Your task to perform on an android device: turn off notifications in google photos Image 0: 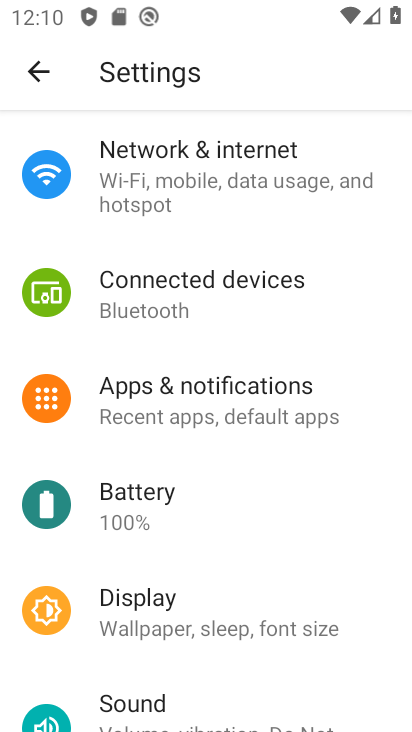
Step 0: press home button
Your task to perform on an android device: turn off notifications in google photos Image 1: 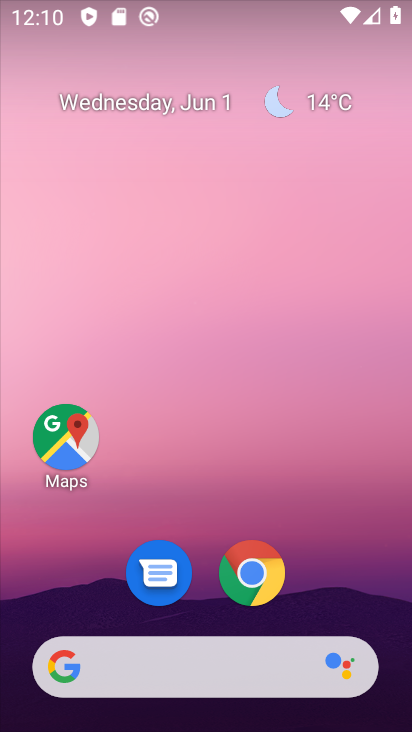
Step 1: drag from (135, 477) to (196, 158)
Your task to perform on an android device: turn off notifications in google photos Image 2: 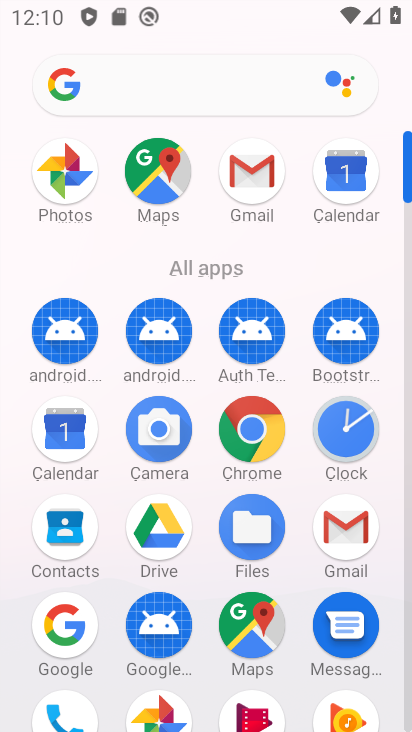
Step 2: drag from (146, 612) to (204, 327)
Your task to perform on an android device: turn off notifications in google photos Image 3: 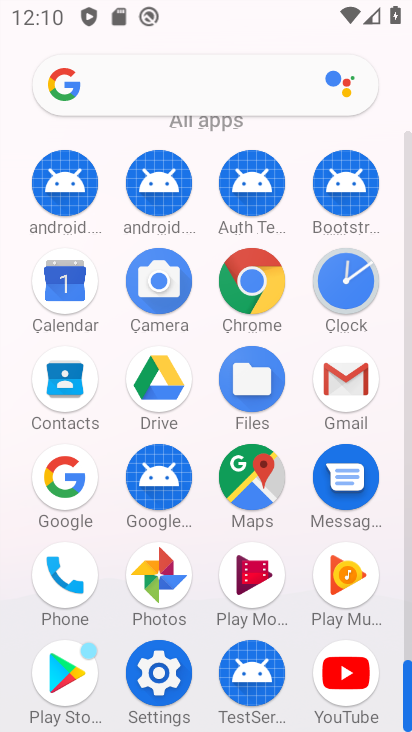
Step 3: click (144, 570)
Your task to perform on an android device: turn off notifications in google photos Image 4: 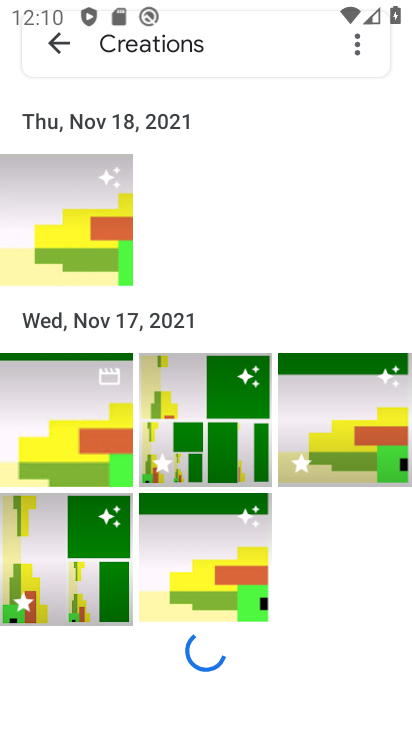
Step 4: click (66, 37)
Your task to perform on an android device: turn off notifications in google photos Image 5: 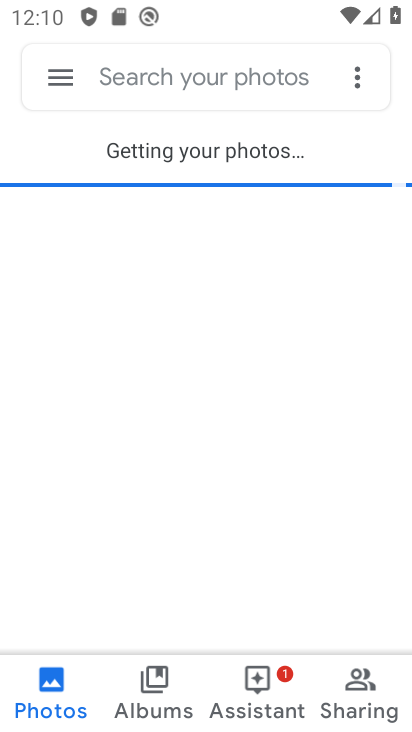
Step 5: click (68, 91)
Your task to perform on an android device: turn off notifications in google photos Image 6: 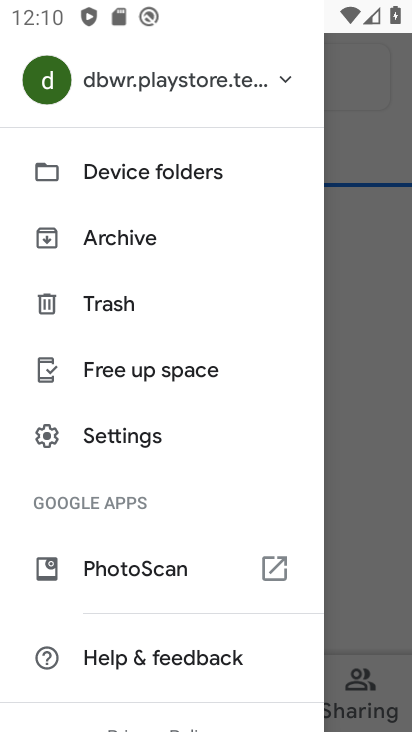
Step 6: drag from (117, 588) to (211, 247)
Your task to perform on an android device: turn off notifications in google photos Image 7: 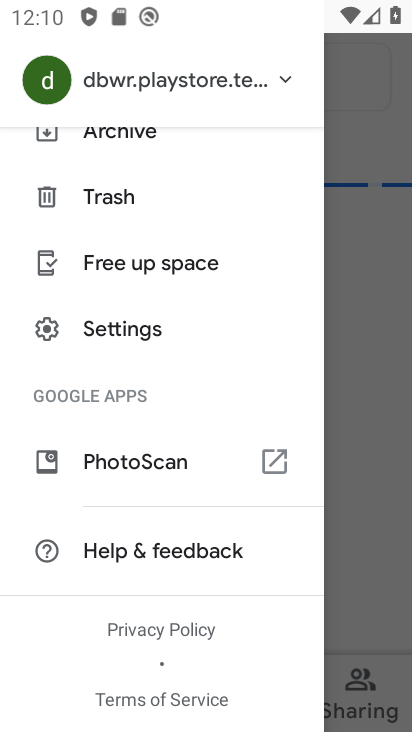
Step 7: click (158, 340)
Your task to perform on an android device: turn off notifications in google photos Image 8: 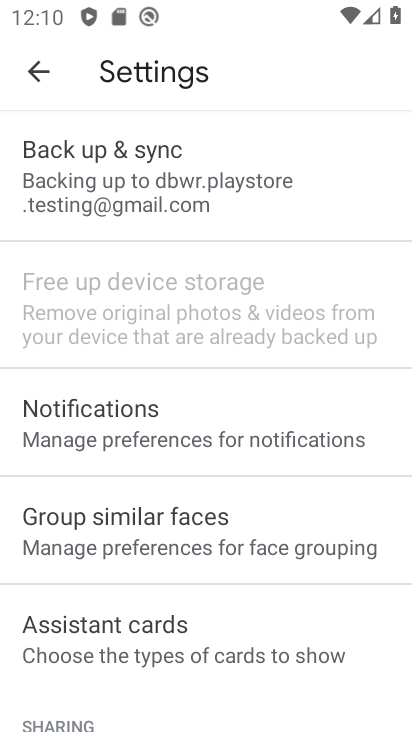
Step 8: click (179, 438)
Your task to perform on an android device: turn off notifications in google photos Image 9: 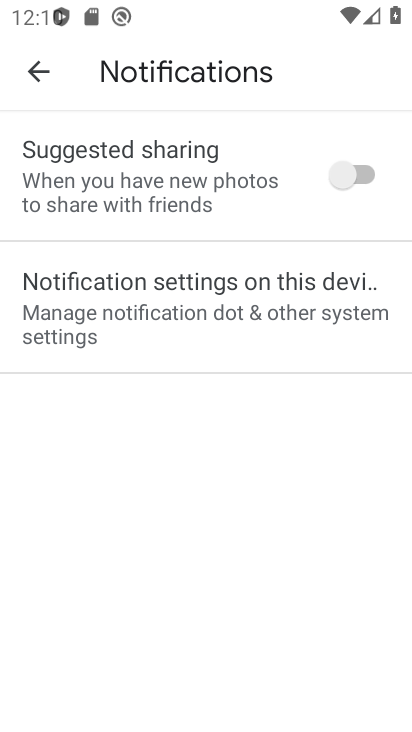
Step 9: click (236, 276)
Your task to perform on an android device: turn off notifications in google photos Image 10: 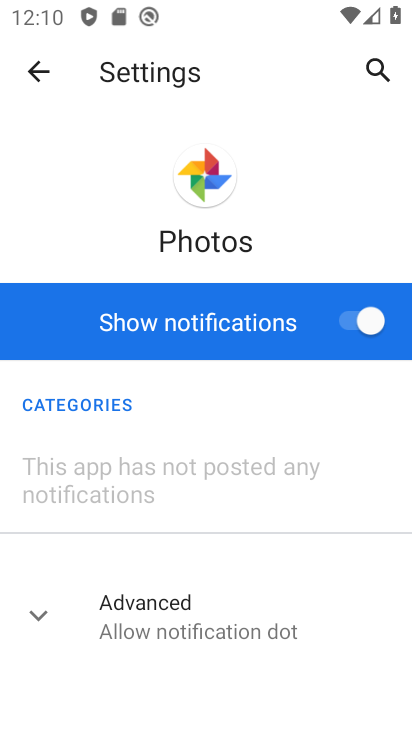
Step 10: click (349, 323)
Your task to perform on an android device: turn off notifications in google photos Image 11: 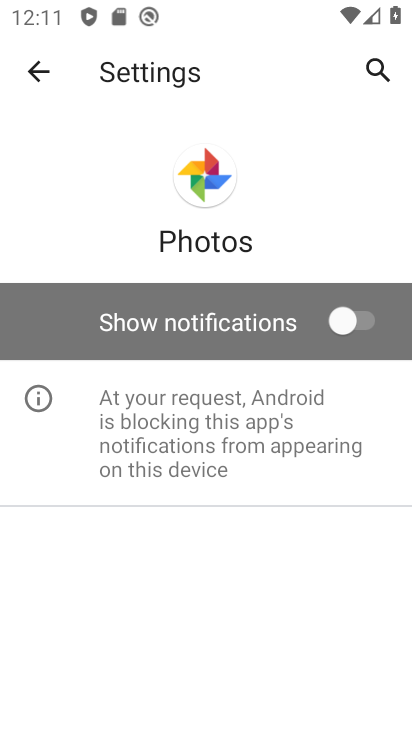
Step 11: task complete